Your task to perform on an android device: Search for sushi restaurants on Maps Image 0: 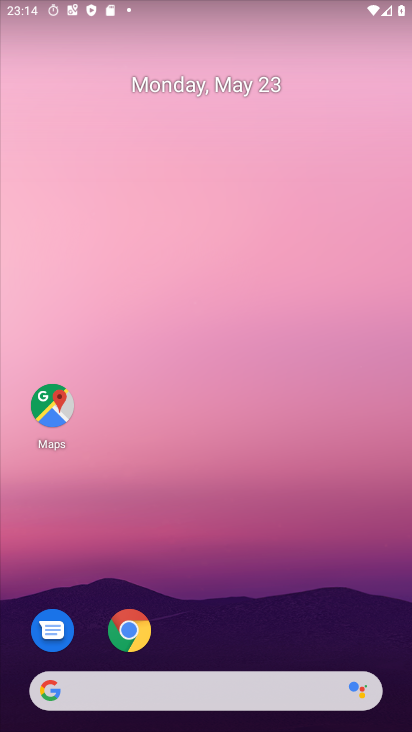
Step 0: click (49, 404)
Your task to perform on an android device: Search for sushi restaurants on Maps Image 1: 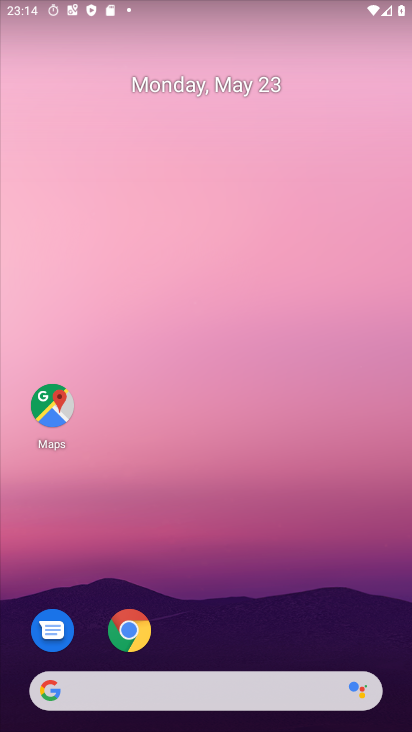
Step 1: click (49, 404)
Your task to perform on an android device: Search for sushi restaurants on Maps Image 2: 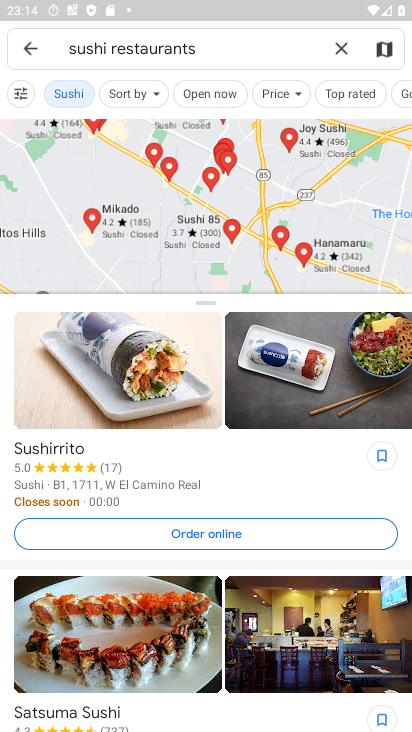
Step 2: task complete